Your task to perform on an android device: Open Reddit.com Image 0: 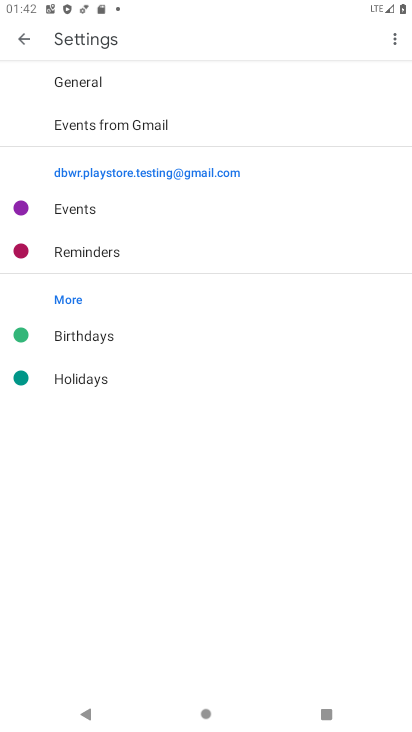
Step 0: press home button
Your task to perform on an android device: Open Reddit.com Image 1: 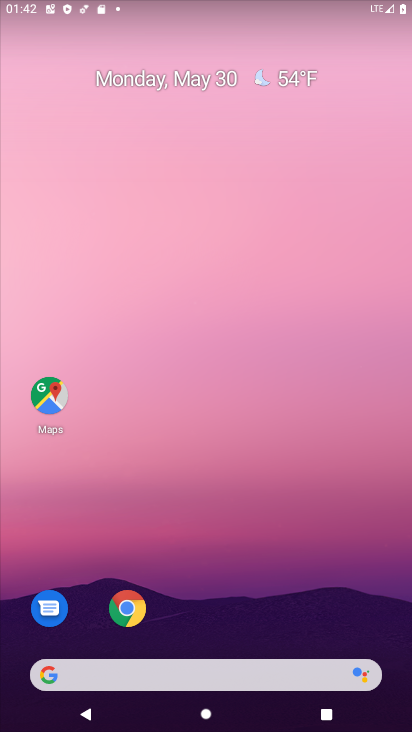
Step 1: click (129, 620)
Your task to perform on an android device: Open Reddit.com Image 2: 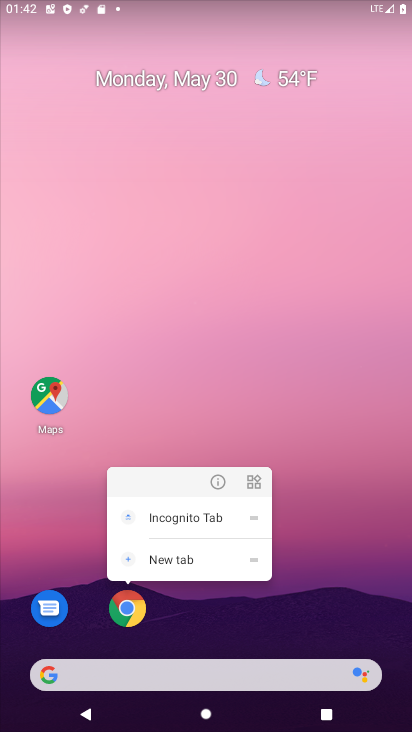
Step 2: click (129, 620)
Your task to perform on an android device: Open Reddit.com Image 3: 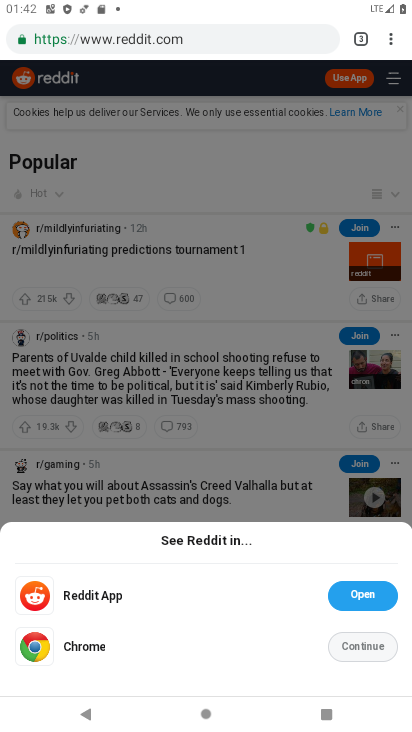
Step 3: press home button
Your task to perform on an android device: Open Reddit.com Image 4: 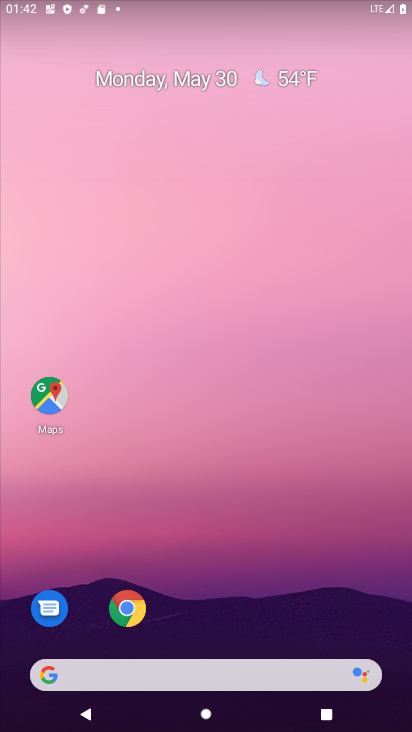
Step 4: click (125, 608)
Your task to perform on an android device: Open Reddit.com Image 5: 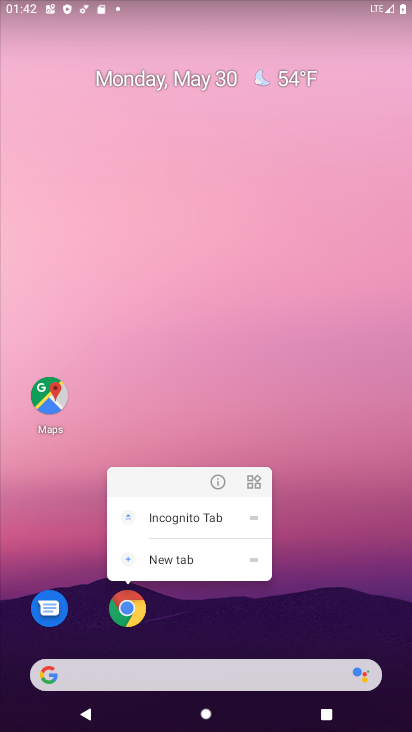
Step 5: click (127, 607)
Your task to perform on an android device: Open Reddit.com Image 6: 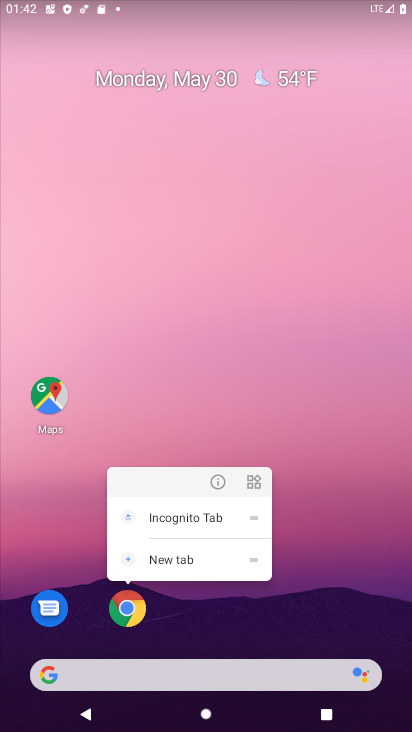
Step 6: click (127, 607)
Your task to perform on an android device: Open Reddit.com Image 7: 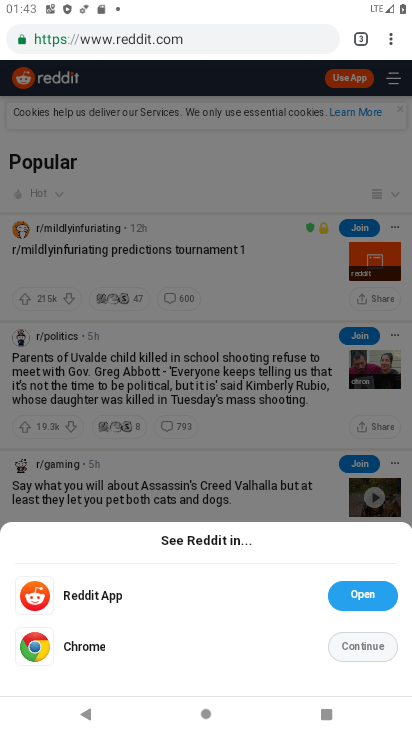
Step 7: task complete